Your task to perform on an android device: Search for seafood restaurants on Google Maps Image 0: 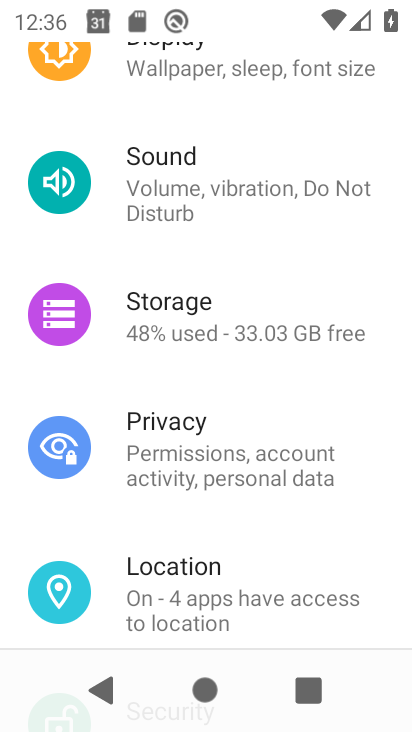
Step 0: press back button
Your task to perform on an android device: Search for seafood restaurants on Google Maps Image 1: 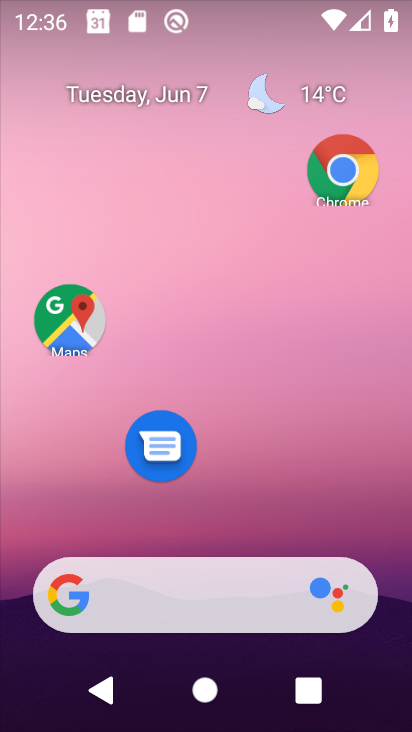
Step 1: click (83, 321)
Your task to perform on an android device: Search for seafood restaurants on Google Maps Image 2: 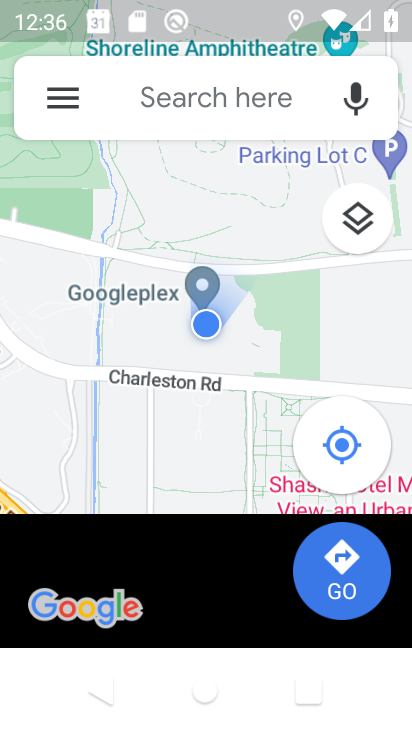
Step 2: click (197, 87)
Your task to perform on an android device: Search for seafood restaurants on Google Maps Image 3: 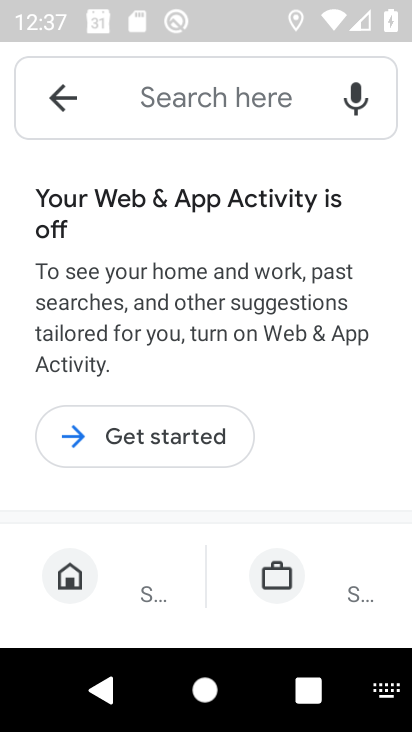
Step 3: drag from (188, 495) to (259, 34)
Your task to perform on an android device: Search for seafood restaurants on Google Maps Image 4: 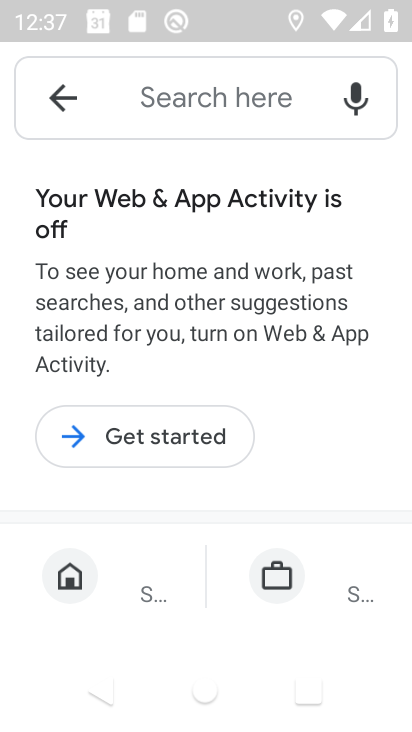
Step 4: click (167, 97)
Your task to perform on an android device: Search for seafood restaurants on Google Maps Image 5: 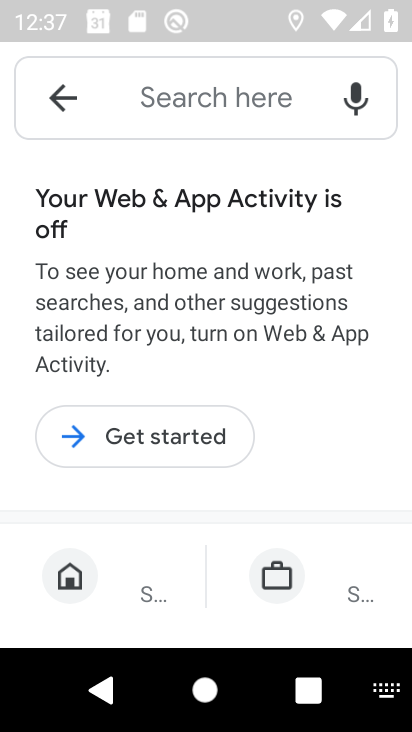
Step 5: type "seafood"
Your task to perform on an android device: Search for seafood restaurants on Google Maps Image 6: 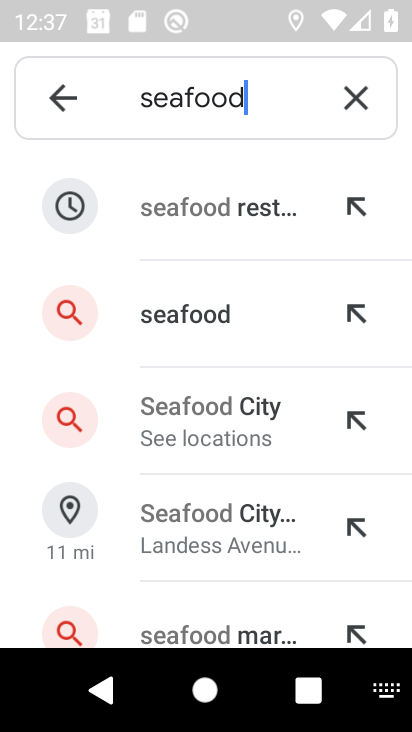
Step 6: click (210, 222)
Your task to perform on an android device: Search for seafood restaurants on Google Maps Image 7: 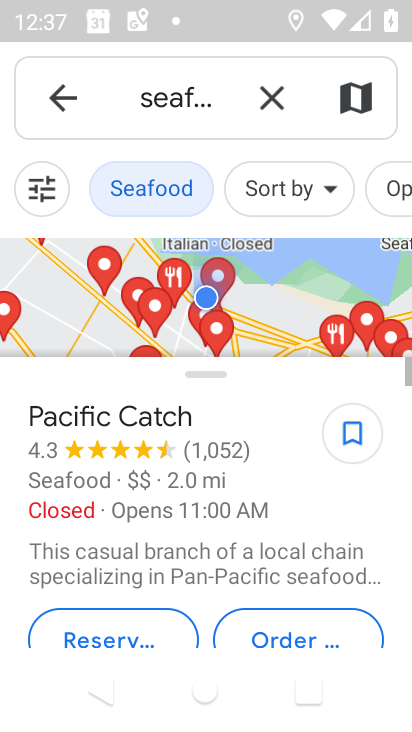
Step 7: task complete